Your task to perform on an android device: set the timer Image 0: 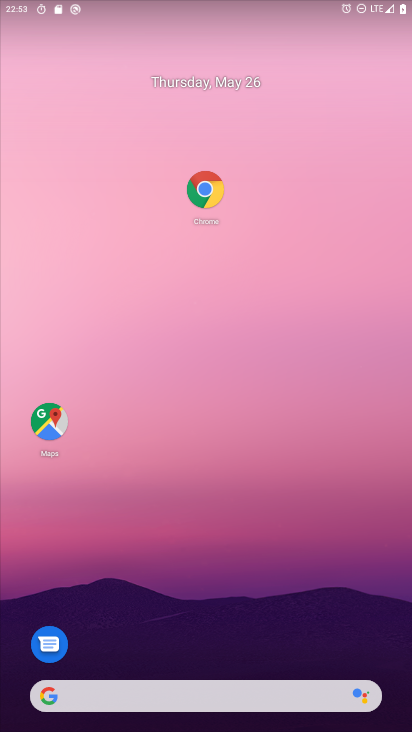
Step 0: drag from (133, 617) to (284, 44)
Your task to perform on an android device: set the timer Image 1: 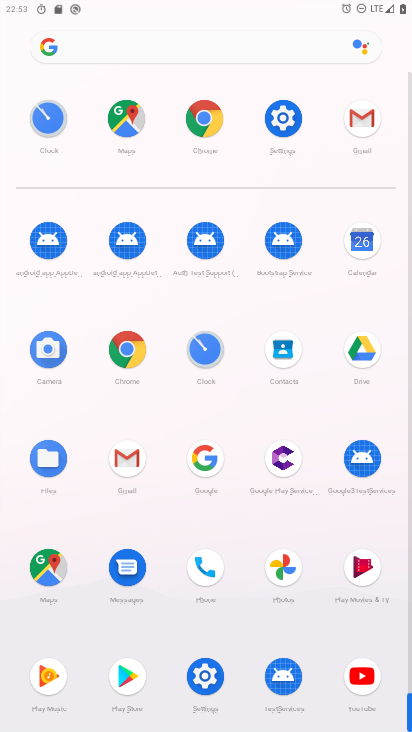
Step 1: click (203, 340)
Your task to perform on an android device: set the timer Image 2: 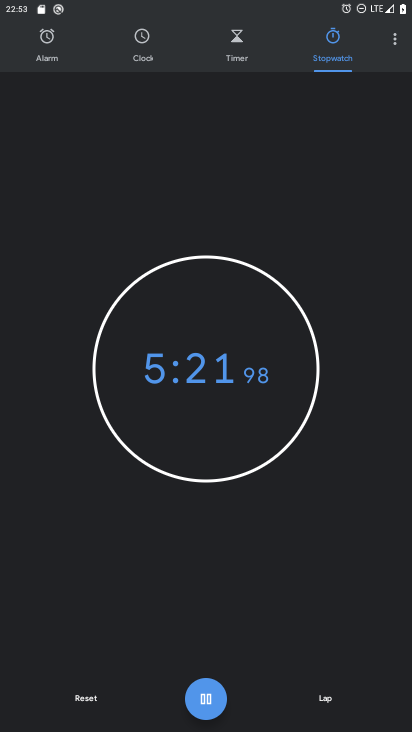
Step 2: click (146, 50)
Your task to perform on an android device: set the timer Image 3: 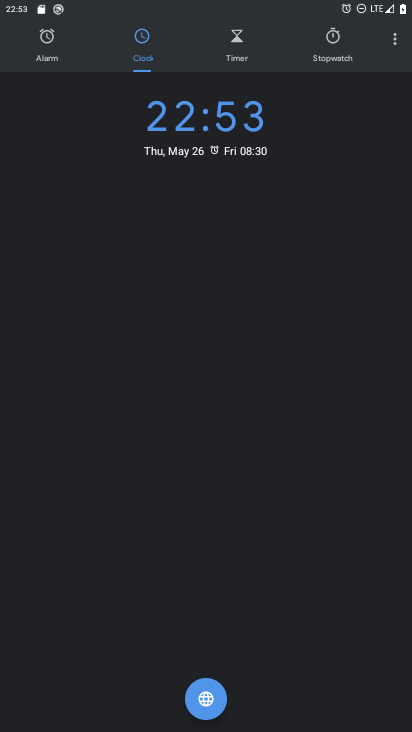
Step 3: click (243, 64)
Your task to perform on an android device: set the timer Image 4: 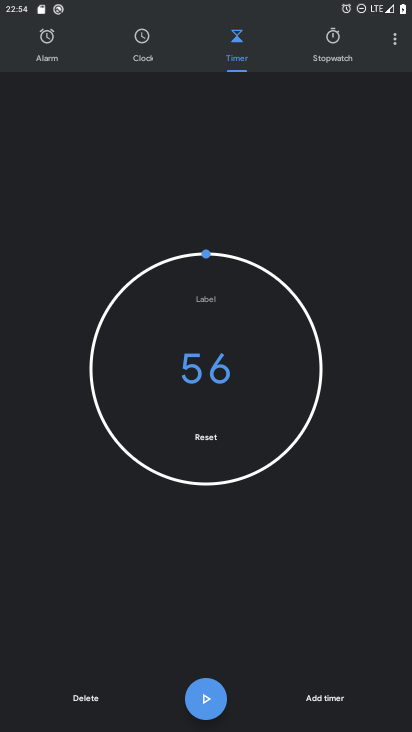
Step 4: click (79, 703)
Your task to perform on an android device: set the timer Image 5: 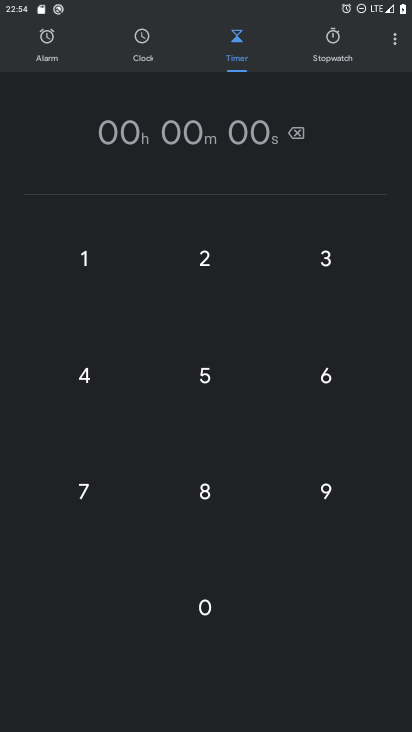
Step 5: click (187, 355)
Your task to perform on an android device: set the timer Image 6: 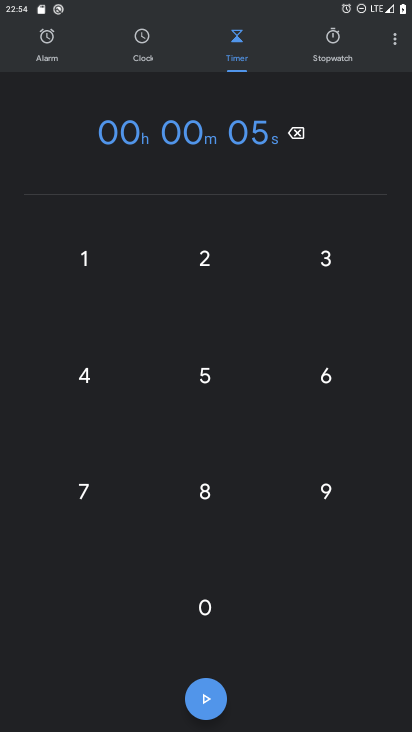
Step 6: click (124, 403)
Your task to perform on an android device: set the timer Image 7: 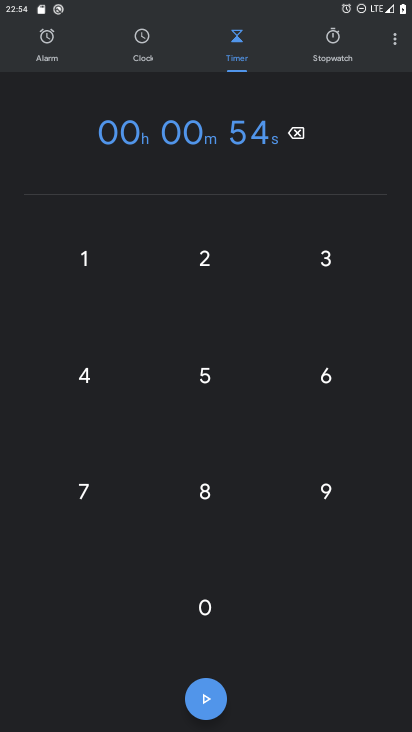
Step 7: click (221, 686)
Your task to perform on an android device: set the timer Image 8: 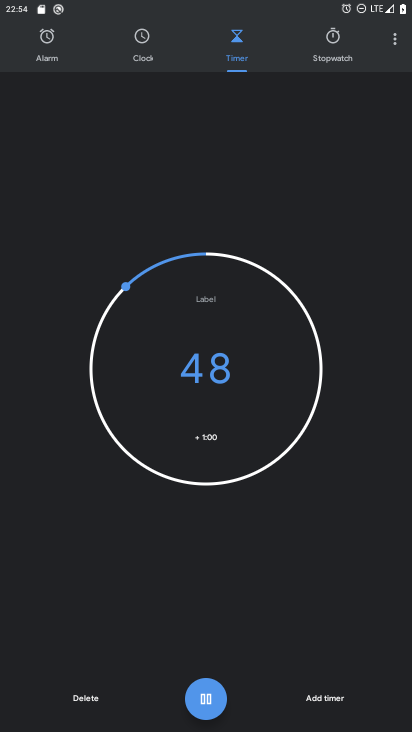
Step 8: task complete